Your task to perform on an android device: Show me popular videos on Youtube Image 0: 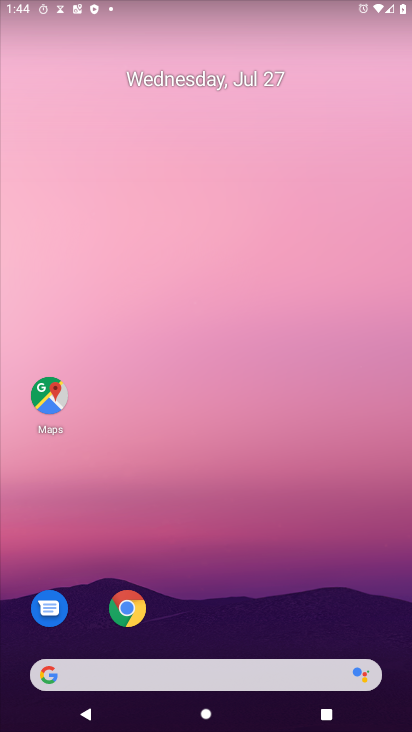
Step 0: click (123, 609)
Your task to perform on an android device: Show me popular videos on Youtube Image 1: 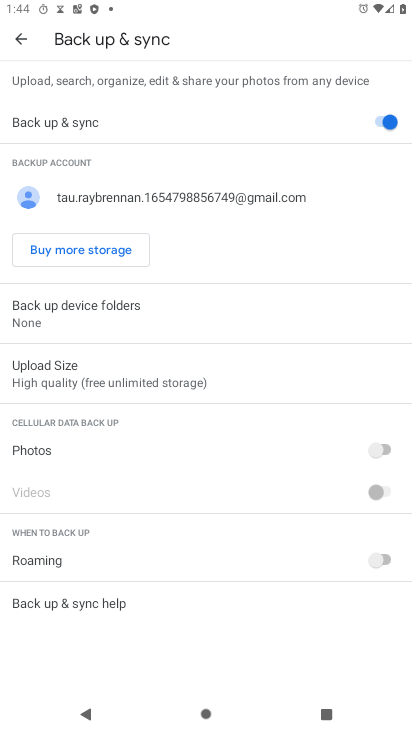
Step 1: press home button
Your task to perform on an android device: Show me popular videos on Youtube Image 2: 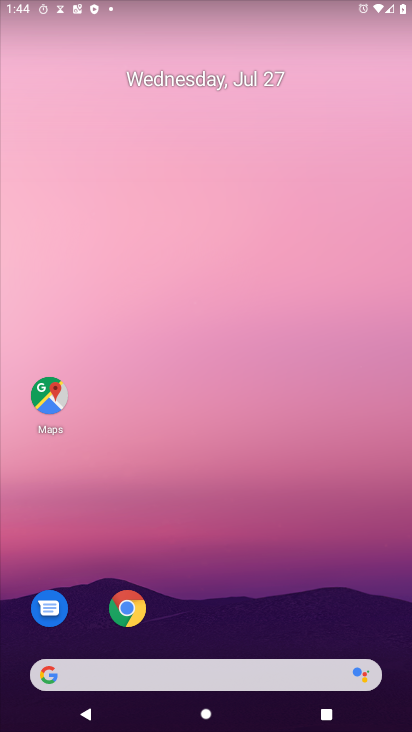
Step 2: drag from (162, 617) to (162, 246)
Your task to perform on an android device: Show me popular videos on Youtube Image 3: 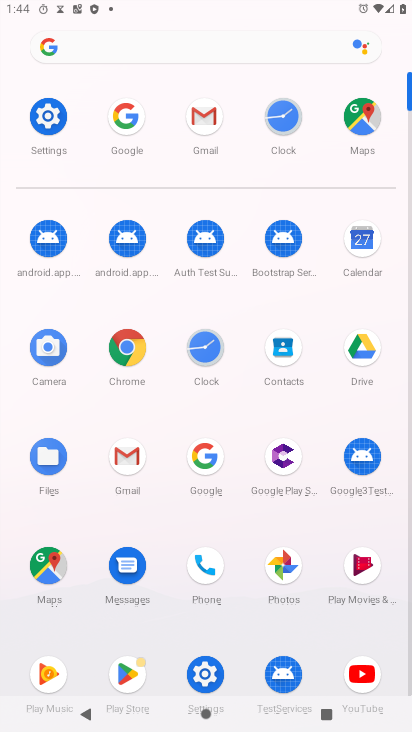
Step 3: click (365, 673)
Your task to perform on an android device: Show me popular videos on Youtube Image 4: 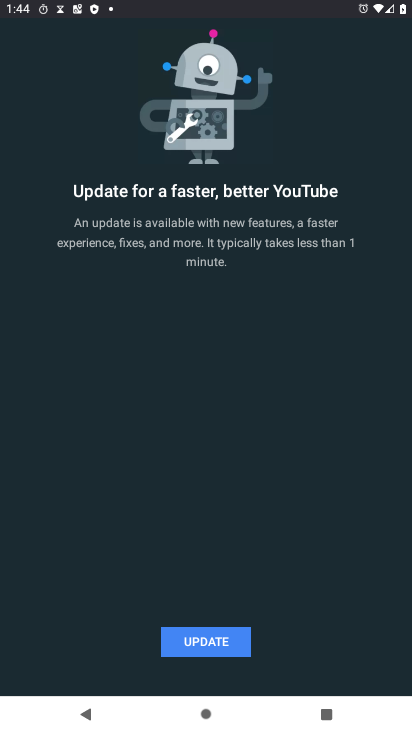
Step 4: click (202, 644)
Your task to perform on an android device: Show me popular videos on Youtube Image 5: 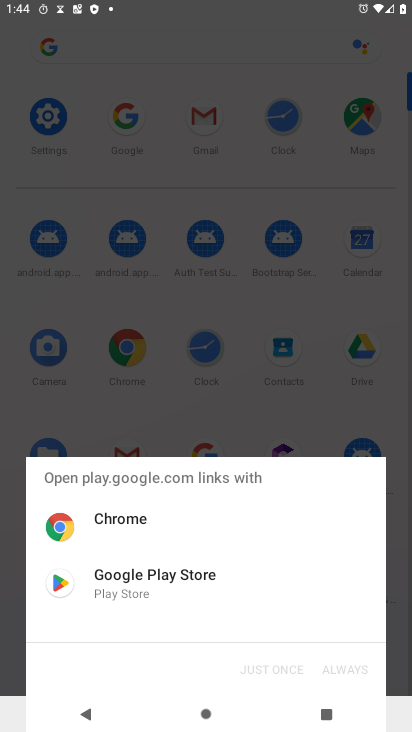
Step 5: click (143, 590)
Your task to perform on an android device: Show me popular videos on Youtube Image 6: 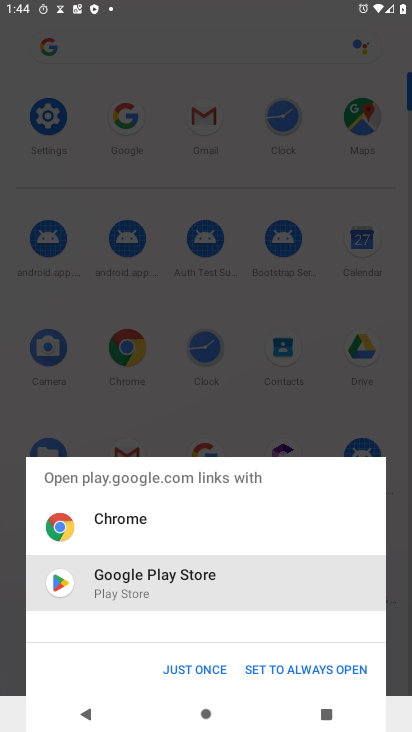
Step 6: click (297, 672)
Your task to perform on an android device: Show me popular videos on Youtube Image 7: 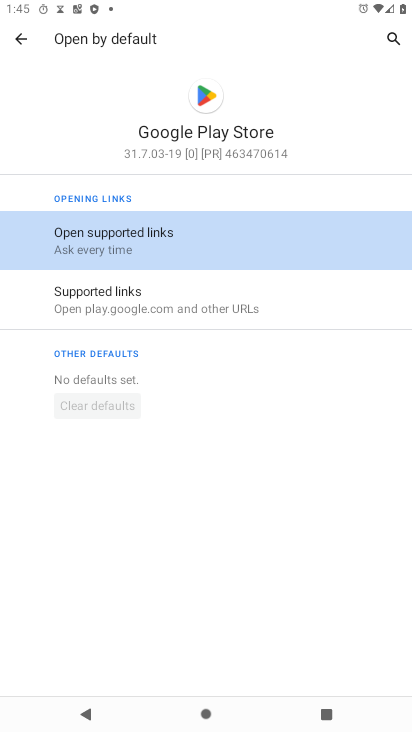
Step 7: click (110, 252)
Your task to perform on an android device: Show me popular videos on Youtube Image 8: 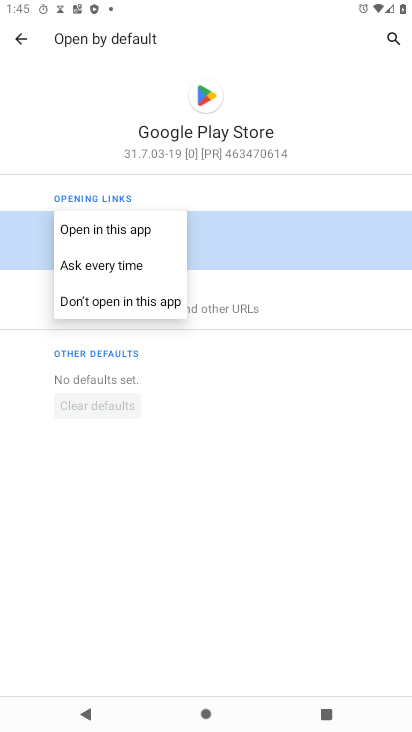
Step 8: click (100, 230)
Your task to perform on an android device: Show me popular videos on Youtube Image 9: 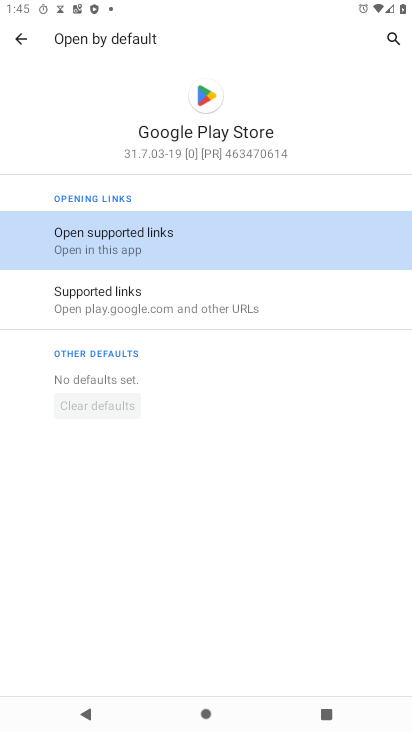
Step 9: click (13, 42)
Your task to perform on an android device: Show me popular videos on Youtube Image 10: 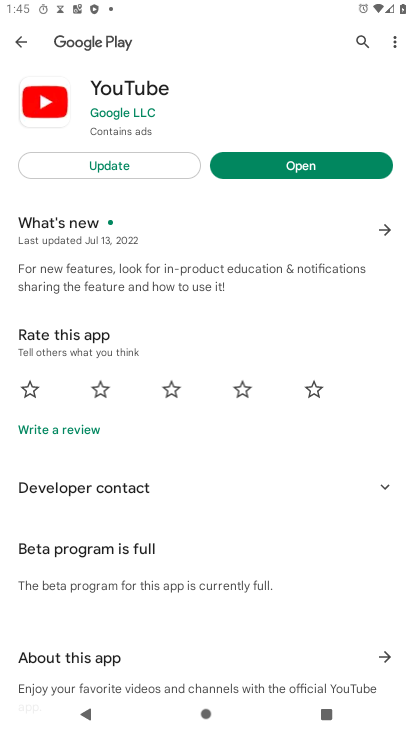
Step 10: click (117, 167)
Your task to perform on an android device: Show me popular videos on Youtube Image 11: 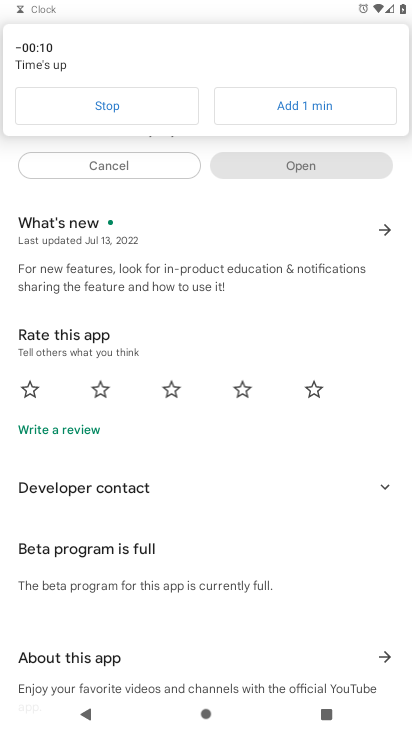
Step 11: click (112, 105)
Your task to perform on an android device: Show me popular videos on Youtube Image 12: 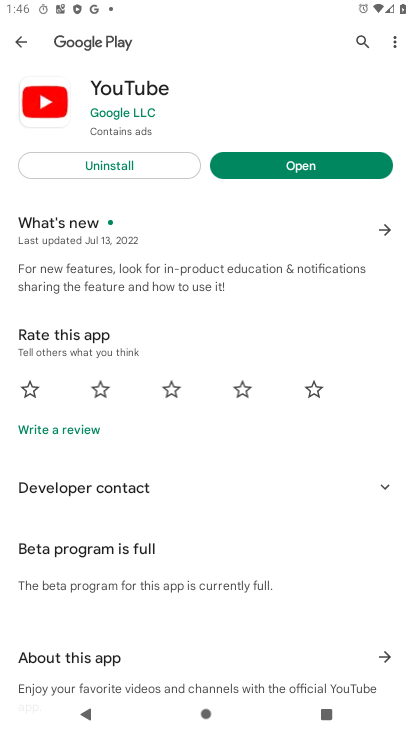
Step 12: click (268, 161)
Your task to perform on an android device: Show me popular videos on Youtube Image 13: 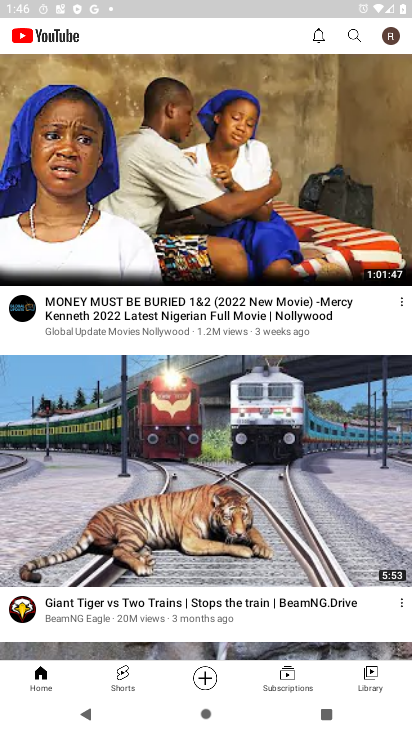
Step 13: task complete